Your task to perform on an android device: Open the calendar and show me this week's events? Image 0: 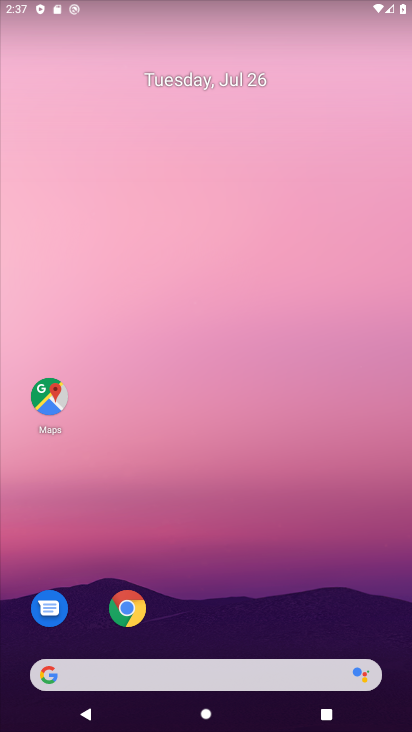
Step 0: drag from (63, 731) to (382, 719)
Your task to perform on an android device: Open the calendar and show me this week's events? Image 1: 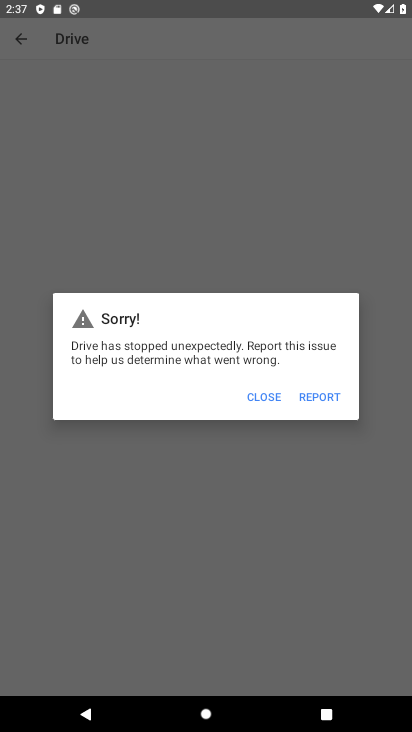
Step 1: press home button
Your task to perform on an android device: Open the calendar and show me this week's events? Image 2: 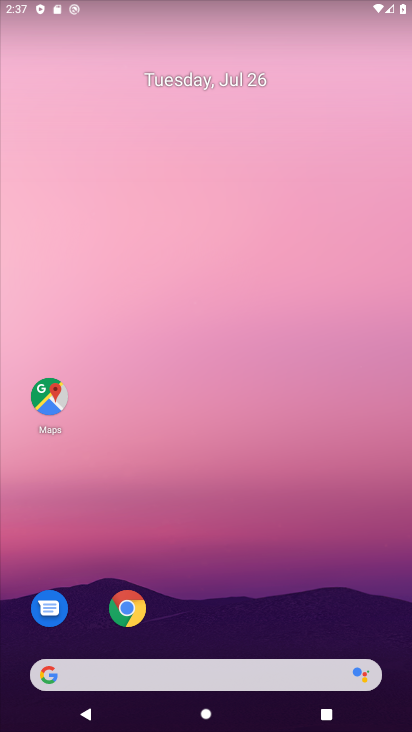
Step 2: drag from (289, 470) to (292, 53)
Your task to perform on an android device: Open the calendar and show me this week's events? Image 3: 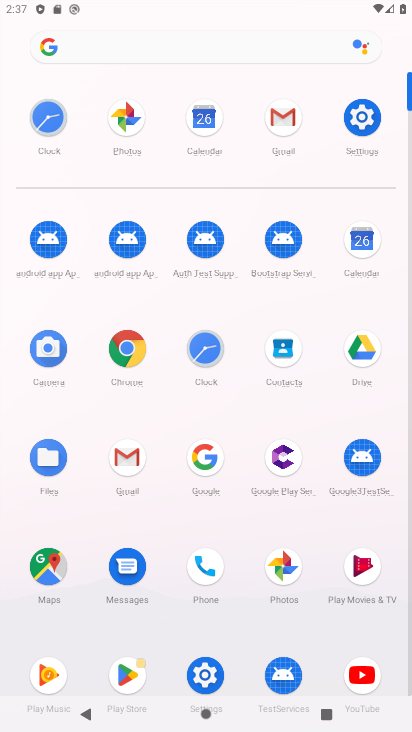
Step 3: click (359, 247)
Your task to perform on an android device: Open the calendar and show me this week's events? Image 4: 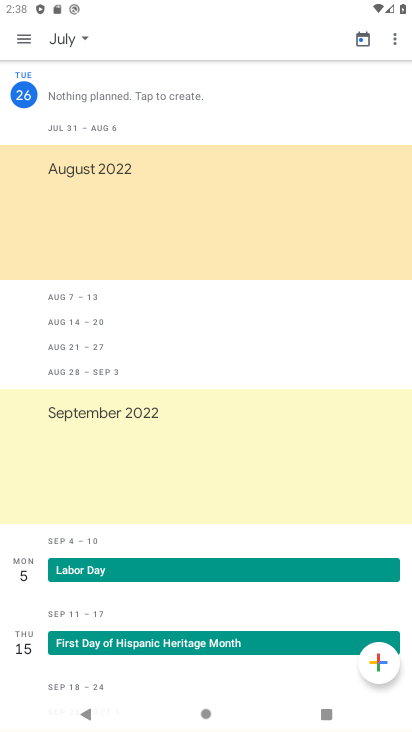
Step 4: task complete